Your task to perform on an android device: Look up the best rated 3d printer on Ali Express Image 0: 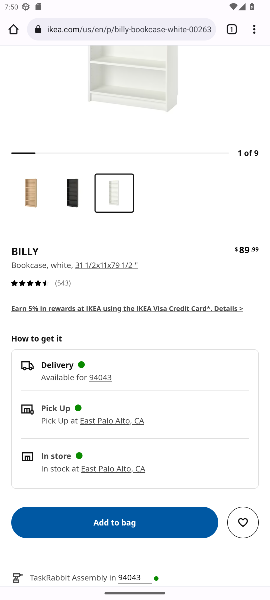
Step 0: press home button
Your task to perform on an android device: Look up the best rated 3d printer on Ali Express Image 1: 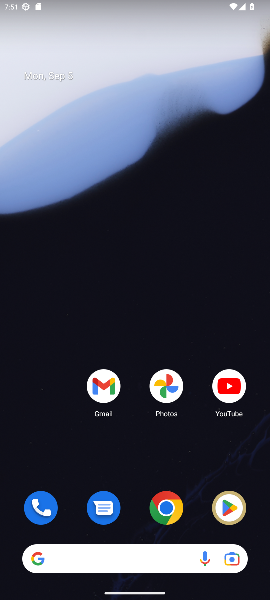
Step 1: drag from (135, 453) to (136, 6)
Your task to perform on an android device: Look up the best rated 3d printer on Ali Express Image 2: 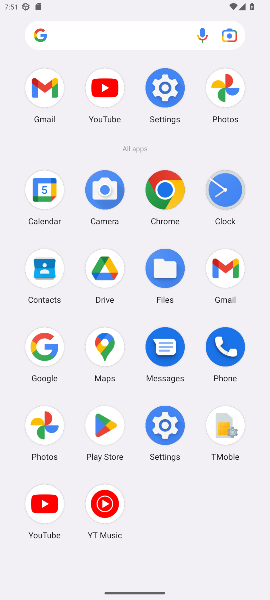
Step 2: click (165, 187)
Your task to perform on an android device: Look up the best rated 3d printer on Ali Express Image 3: 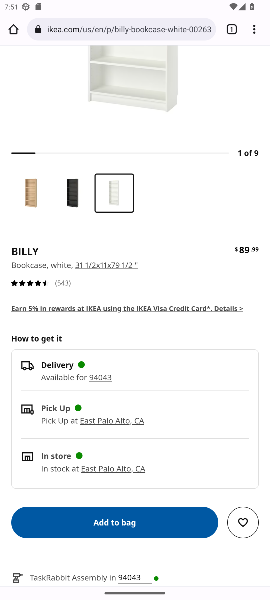
Step 3: click (230, 25)
Your task to perform on an android device: Look up the best rated 3d printer on Ali Express Image 4: 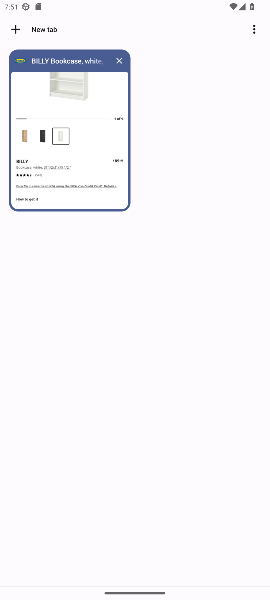
Step 4: click (15, 30)
Your task to perform on an android device: Look up the best rated 3d printer on Ali Express Image 5: 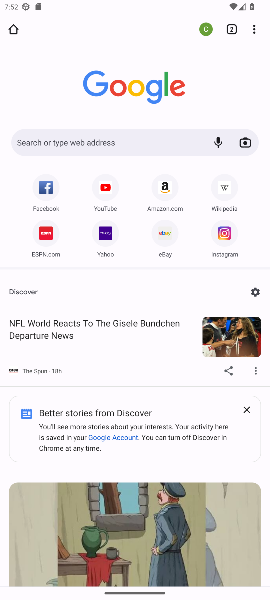
Step 5: click (62, 136)
Your task to perform on an android device: Look up the best rated 3d printer on Ali Express Image 6: 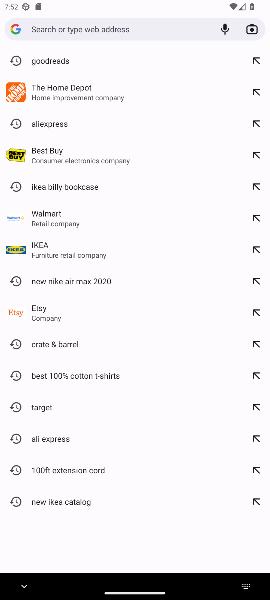
Step 6: type "best rated 3d printer on Ali Express"
Your task to perform on an android device: Look up the best rated 3d printer on Ali Express Image 7: 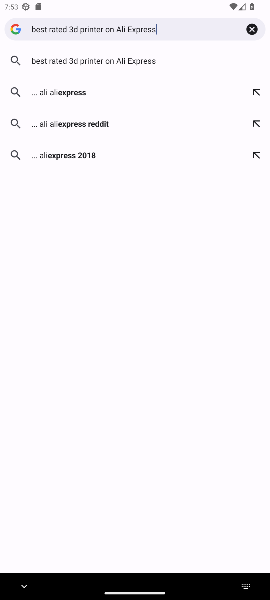
Step 7: click (108, 56)
Your task to perform on an android device: Look up the best rated 3d printer on Ali Express Image 8: 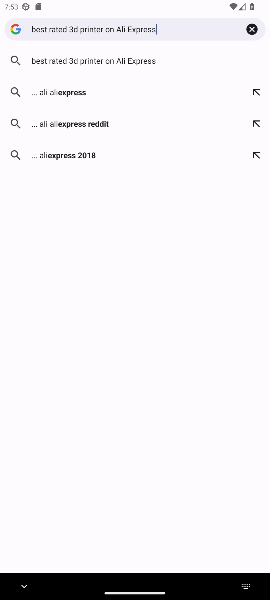
Step 8: click (83, 54)
Your task to perform on an android device: Look up the best rated 3d printer on Ali Express Image 9: 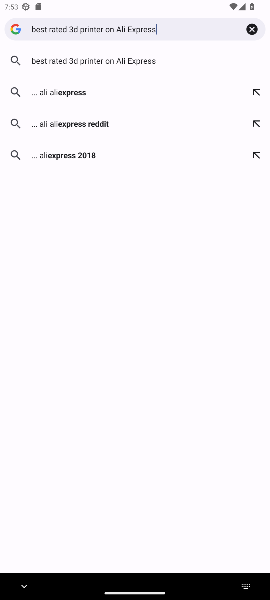
Step 9: click (74, 59)
Your task to perform on an android device: Look up the best rated 3d printer on Ali Express Image 10: 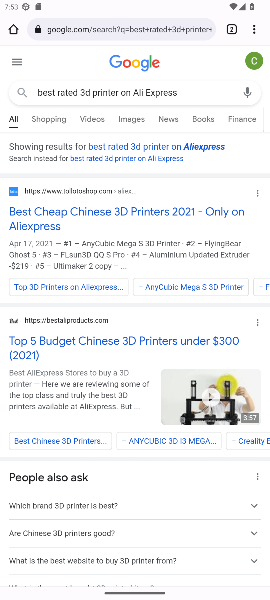
Step 10: click (202, 144)
Your task to perform on an android device: Look up the best rated 3d printer on Ali Express Image 11: 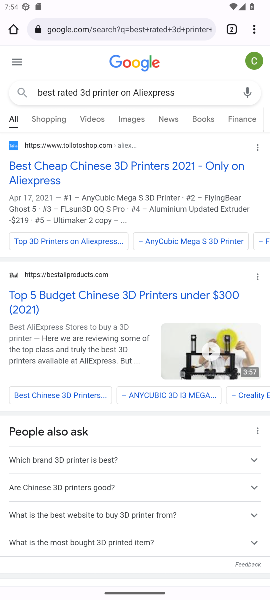
Step 11: drag from (118, 415) to (116, 141)
Your task to perform on an android device: Look up the best rated 3d printer on Ali Express Image 12: 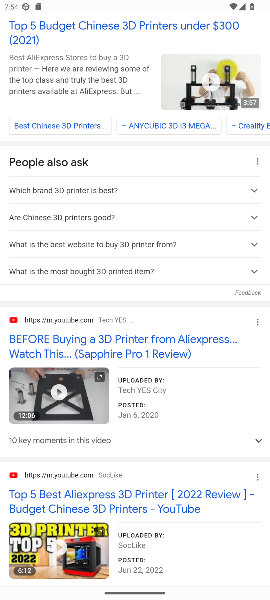
Step 12: drag from (140, 455) to (125, 144)
Your task to perform on an android device: Look up the best rated 3d printer on Ali Express Image 13: 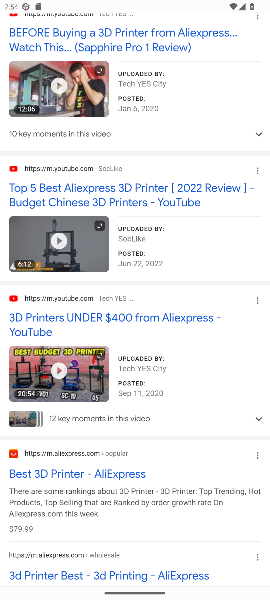
Step 13: drag from (138, 533) to (121, 317)
Your task to perform on an android device: Look up the best rated 3d printer on Ali Express Image 14: 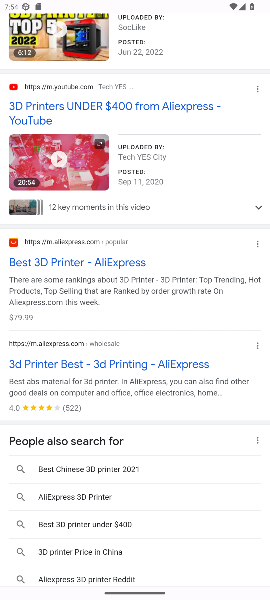
Step 14: click (187, 365)
Your task to perform on an android device: Look up the best rated 3d printer on Ali Express Image 15: 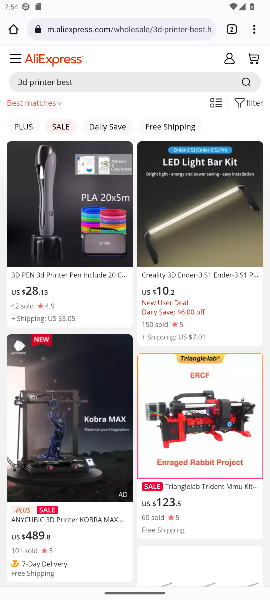
Step 15: drag from (133, 330) to (138, 125)
Your task to perform on an android device: Look up the best rated 3d printer on Ali Express Image 16: 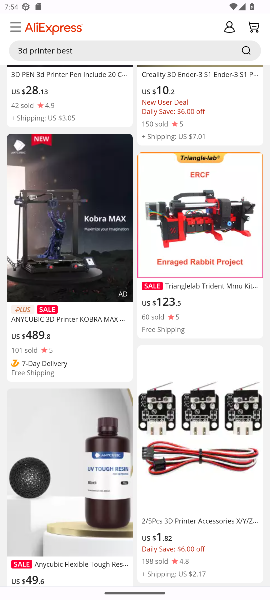
Step 16: drag from (131, 337) to (135, 132)
Your task to perform on an android device: Look up the best rated 3d printer on Ali Express Image 17: 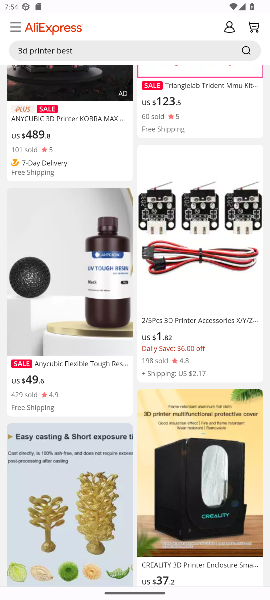
Step 17: drag from (129, 416) to (127, 197)
Your task to perform on an android device: Look up the best rated 3d printer on Ali Express Image 18: 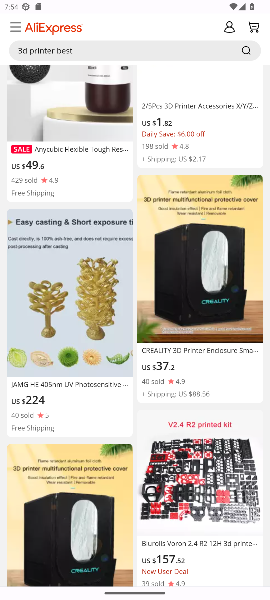
Step 18: drag from (128, 437) to (121, 194)
Your task to perform on an android device: Look up the best rated 3d printer on Ali Express Image 19: 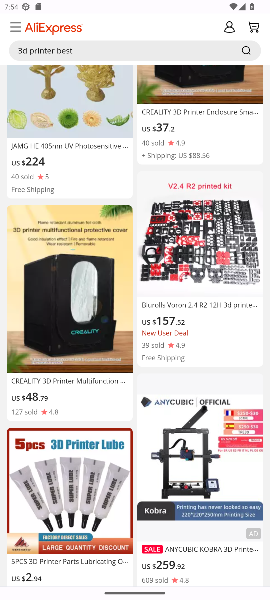
Step 19: drag from (130, 421) to (163, 32)
Your task to perform on an android device: Look up the best rated 3d printer on Ali Express Image 20: 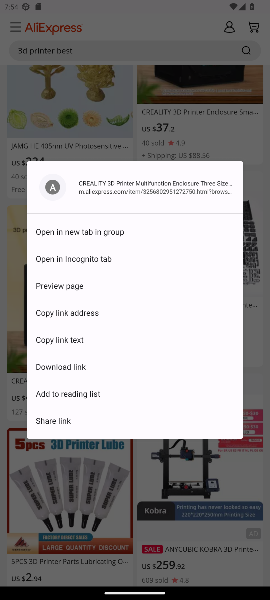
Step 20: click (15, 483)
Your task to perform on an android device: Look up the best rated 3d printer on Ali Express Image 21: 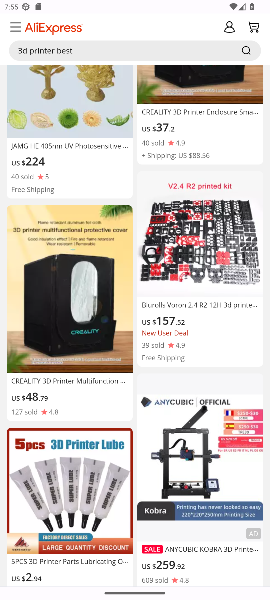
Step 21: task complete